Your task to perform on an android device: What's the weather going to be tomorrow? Image 0: 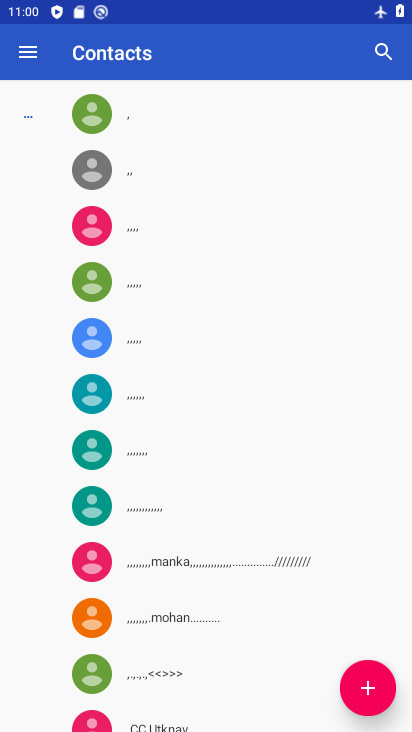
Step 0: press home button
Your task to perform on an android device: What's the weather going to be tomorrow? Image 1: 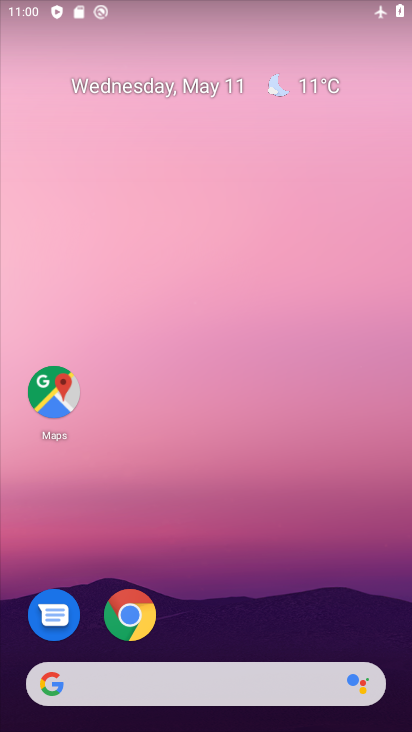
Step 1: click (294, 81)
Your task to perform on an android device: What's the weather going to be tomorrow? Image 2: 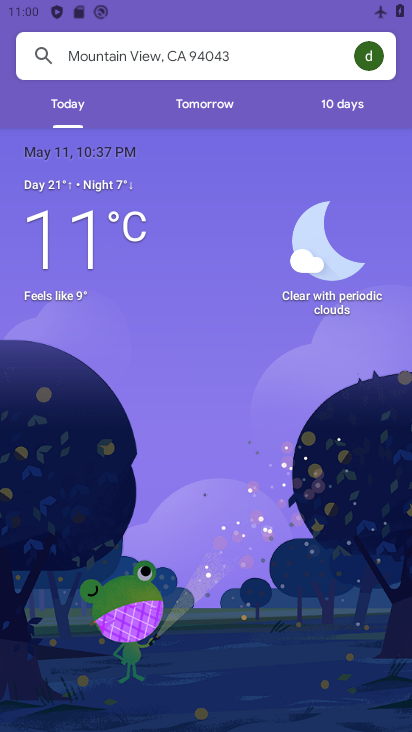
Step 2: click (206, 106)
Your task to perform on an android device: What's the weather going to be tomorrow? Image 3: 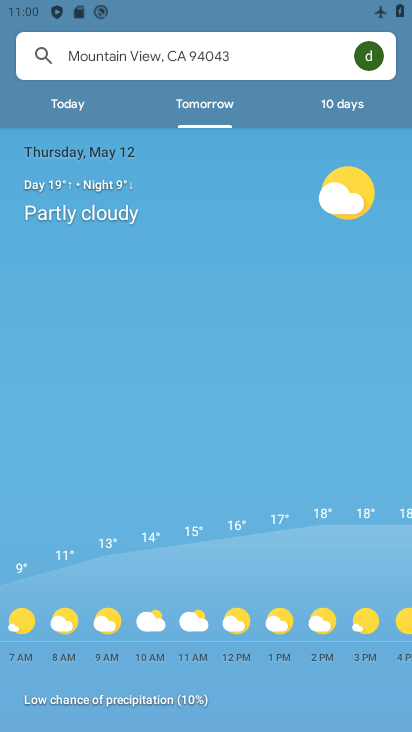
Step 3: task complete